Your task to perform on an android device: Add "razer blade" to the cart on costco, then select checkout. Image 0: 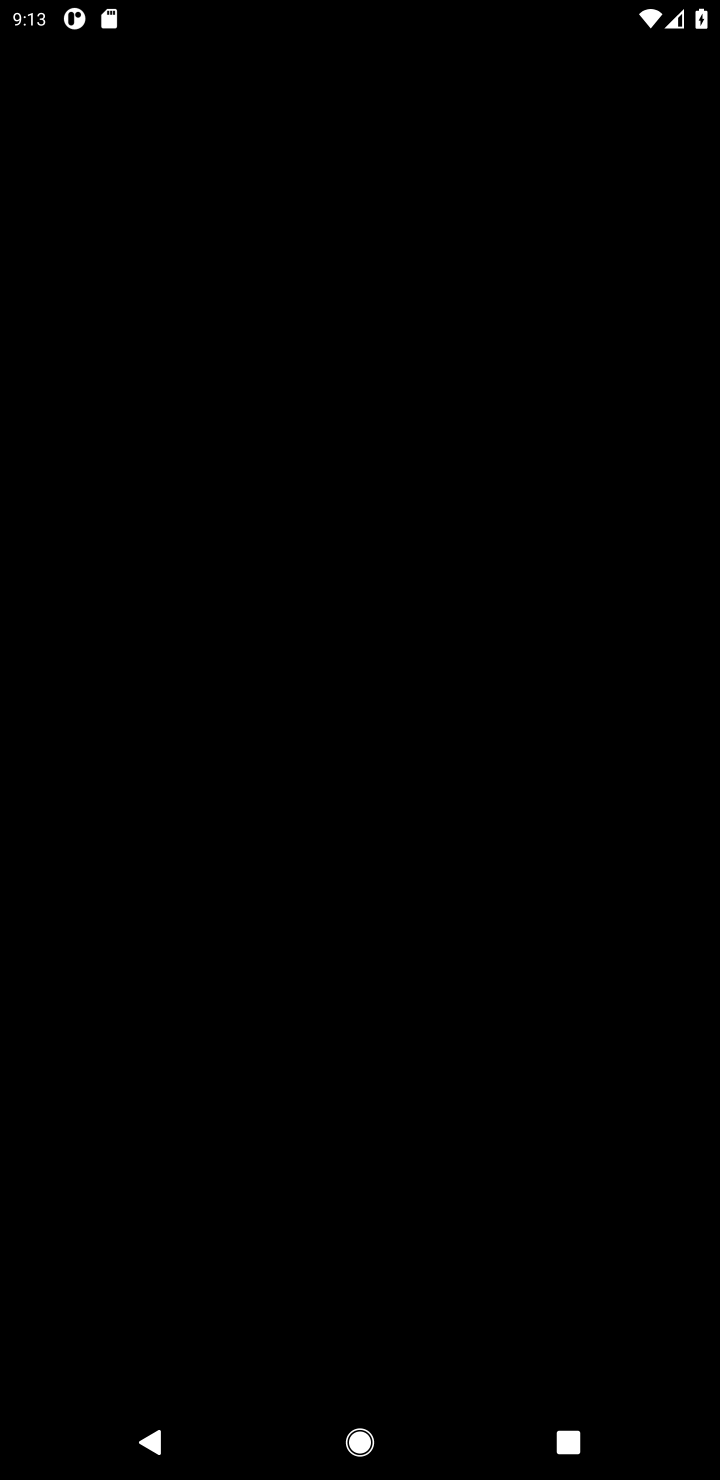
Step 0: press home button
Your task to perform on an android device: Add "razer blade" to the cart on costco, then select checkout. Image 1: 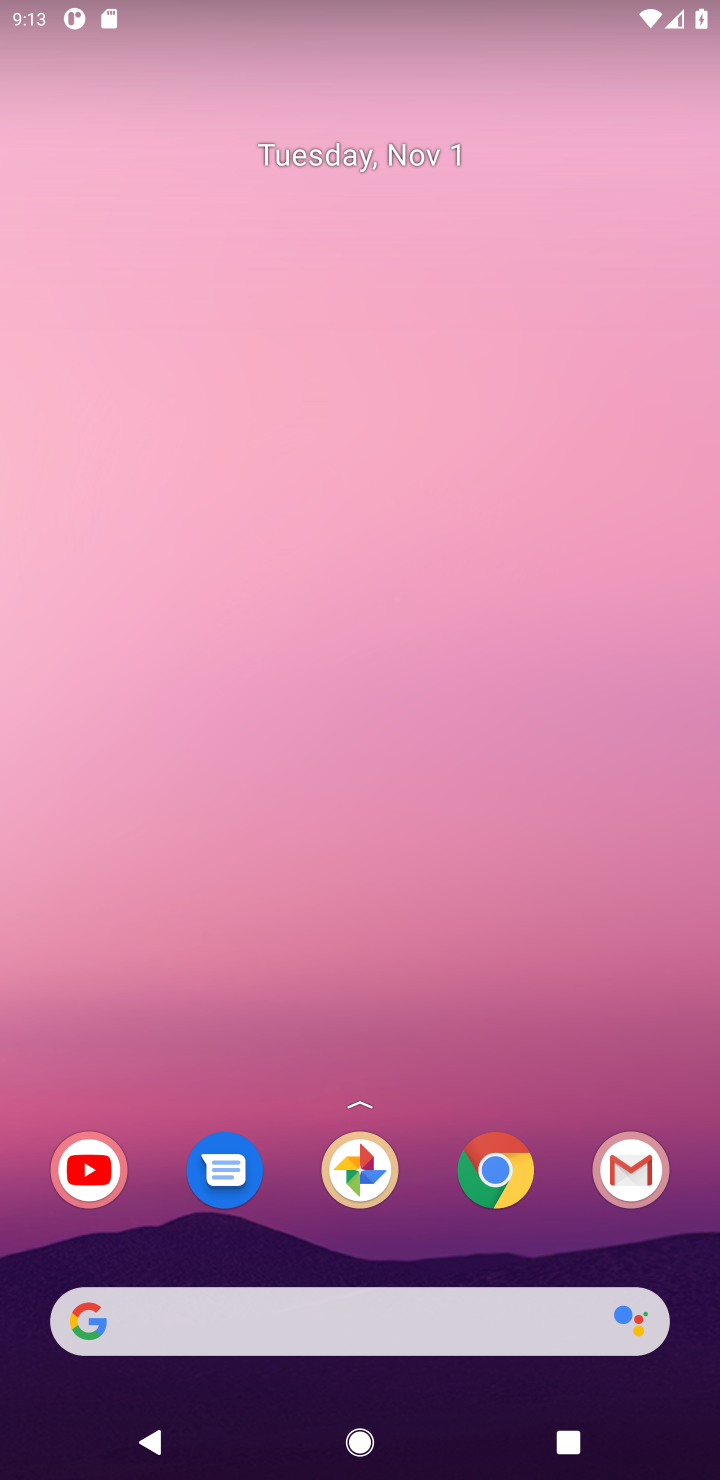
Step 1: click (506, 1198)
Your task to perform on an android device: Add "razer blade" to the cart on costco, then select checkout. Image 2: 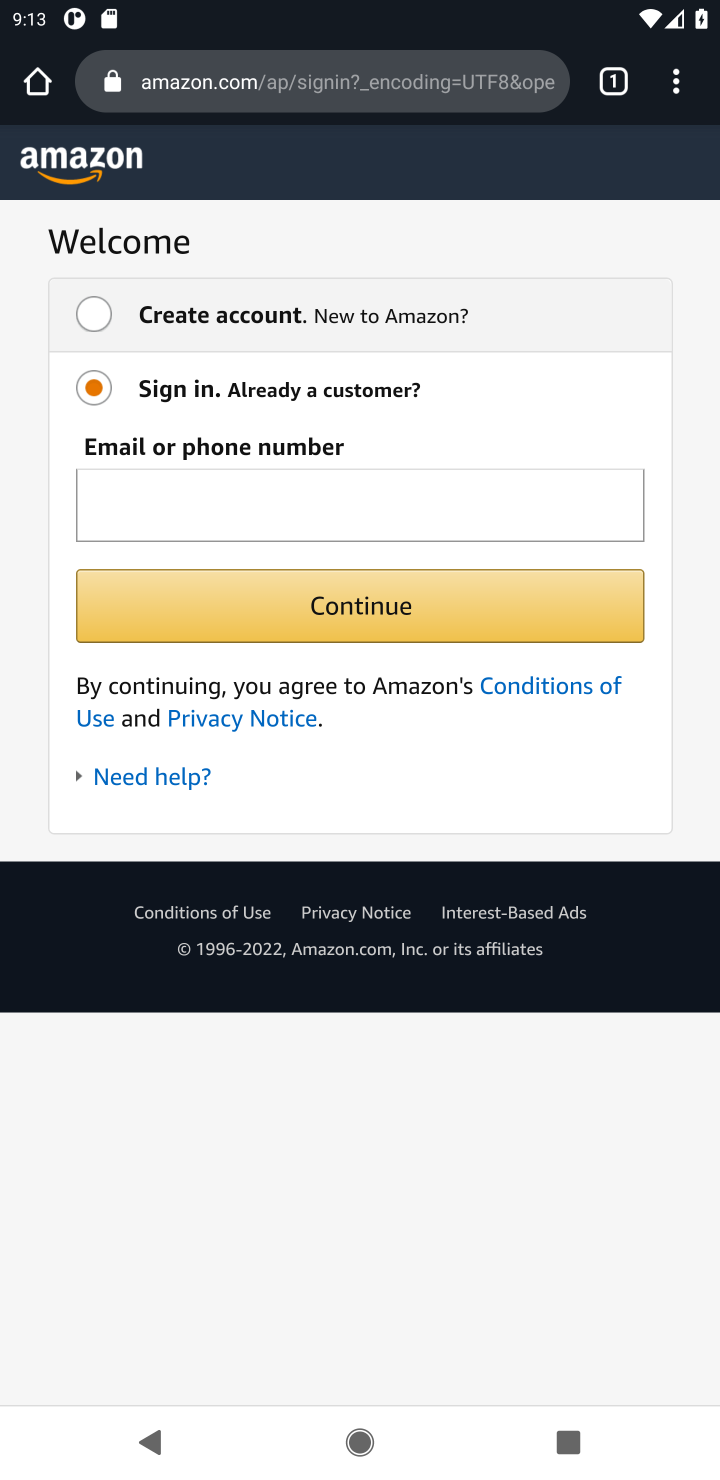
Step 2: click (316, 67)
Your task to perform on an android device: Add "razer blade" to the cart on costco, then select checkout. Image 3: 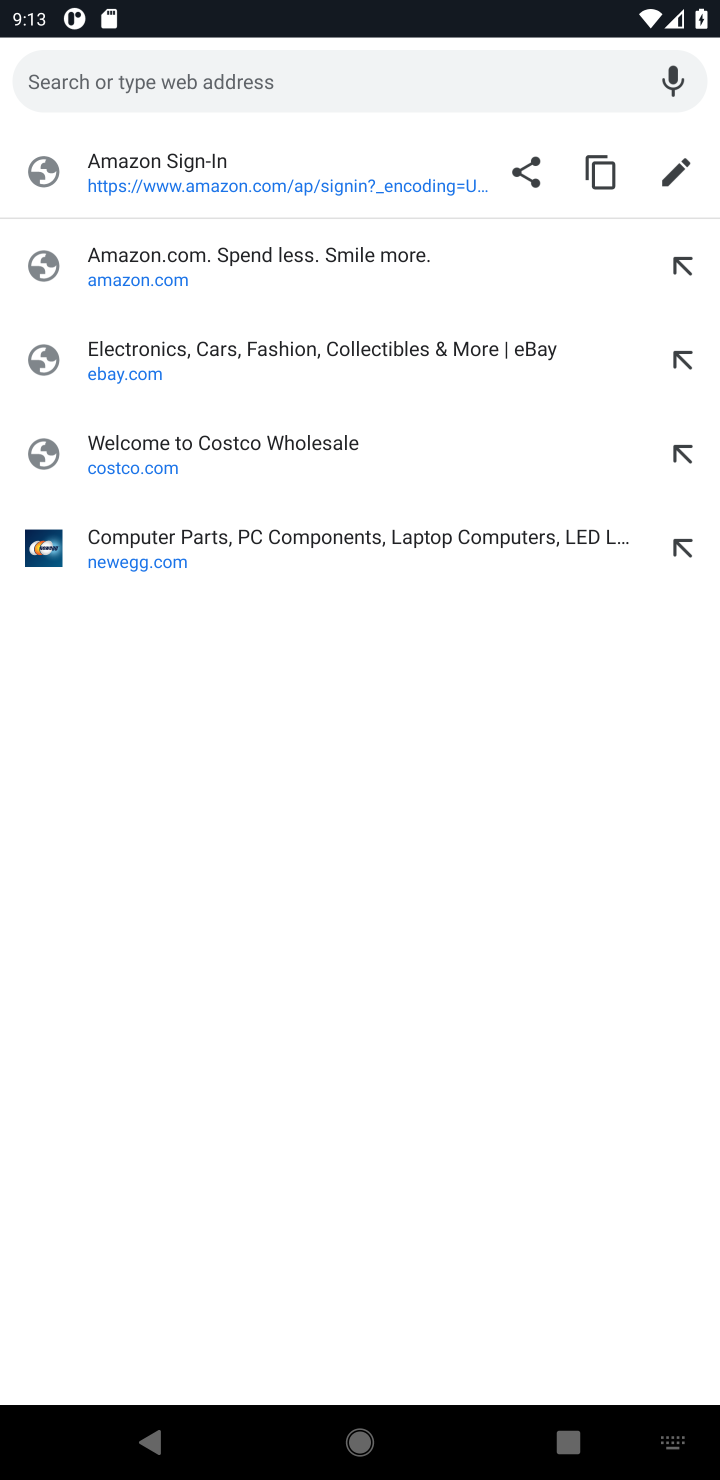
Step 3: type "costco"
Your task to perform on an android device: Add "razer blade" to the cart on costco, then select checkout. Image 4: 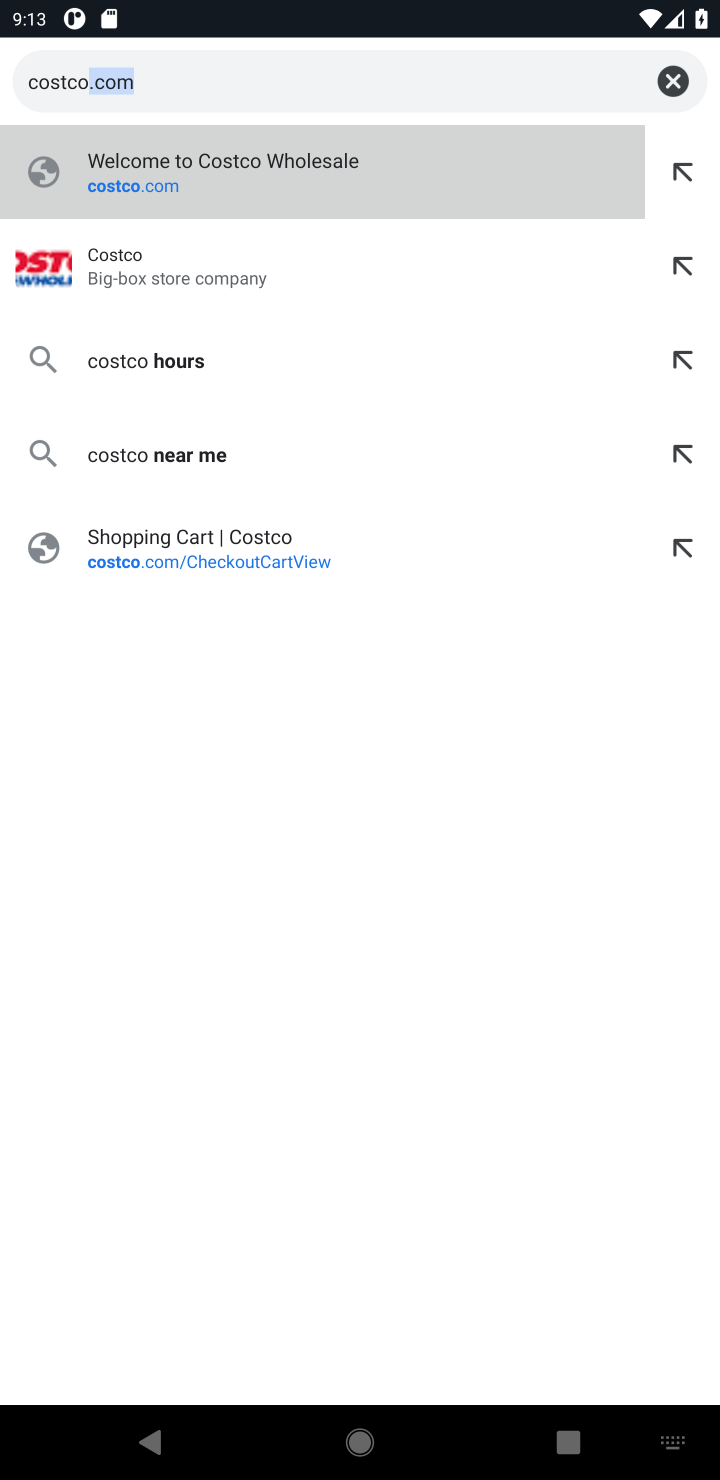
Step 4: press enter
Your task to perform on an android device: Add "razer blade" to the cart on costco, then select checkout. Image 5: 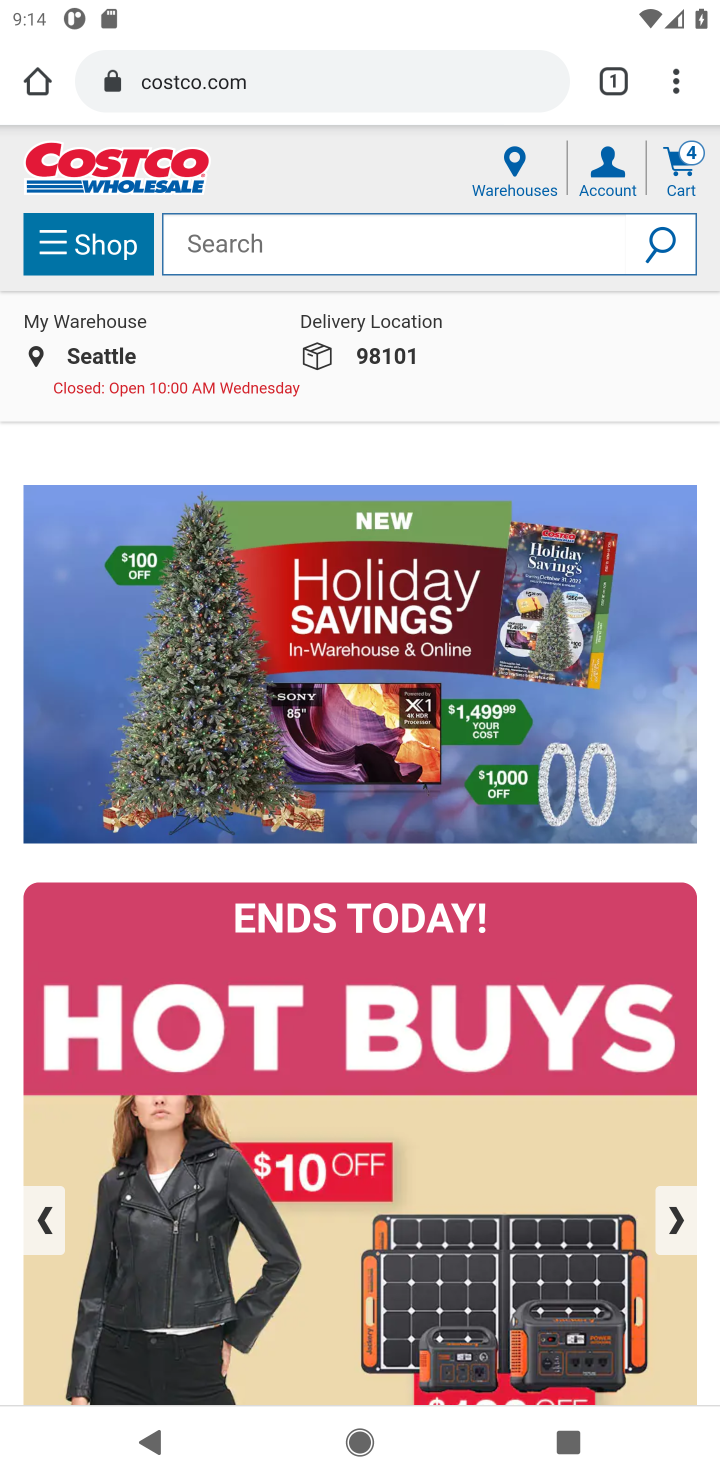
Step 5: click (362, 233)
Your task to perform on an android device: Add "razer blade" to the cart on costco, then select checkout. Image 6: 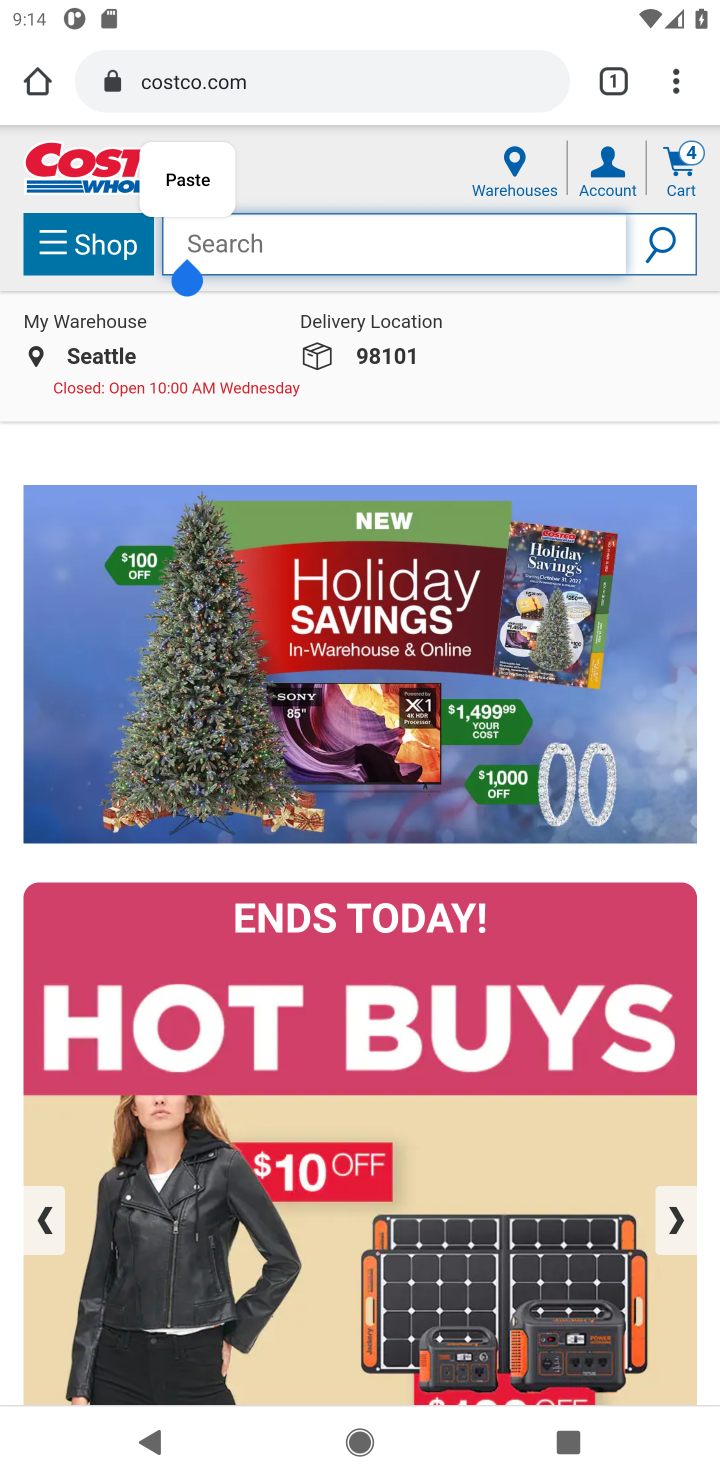
Step 6: type "razer blade"
Your task to perform on an android device: Add "razer blade" to the cart on costco, then select checkout. Image 7: 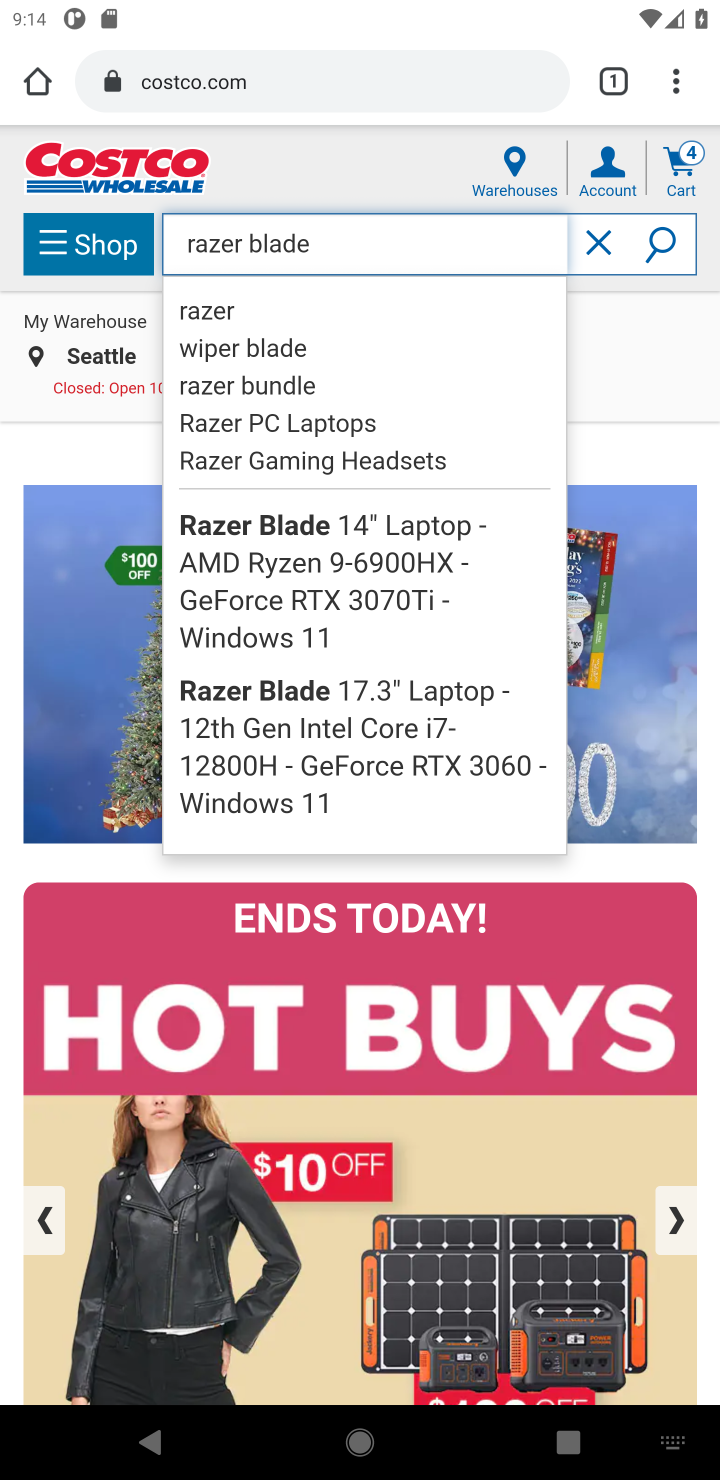
Step 7: press enter
Your task to perform on an android device: Add "razer blade" to the cart on costco, then select checkout. Image 8: 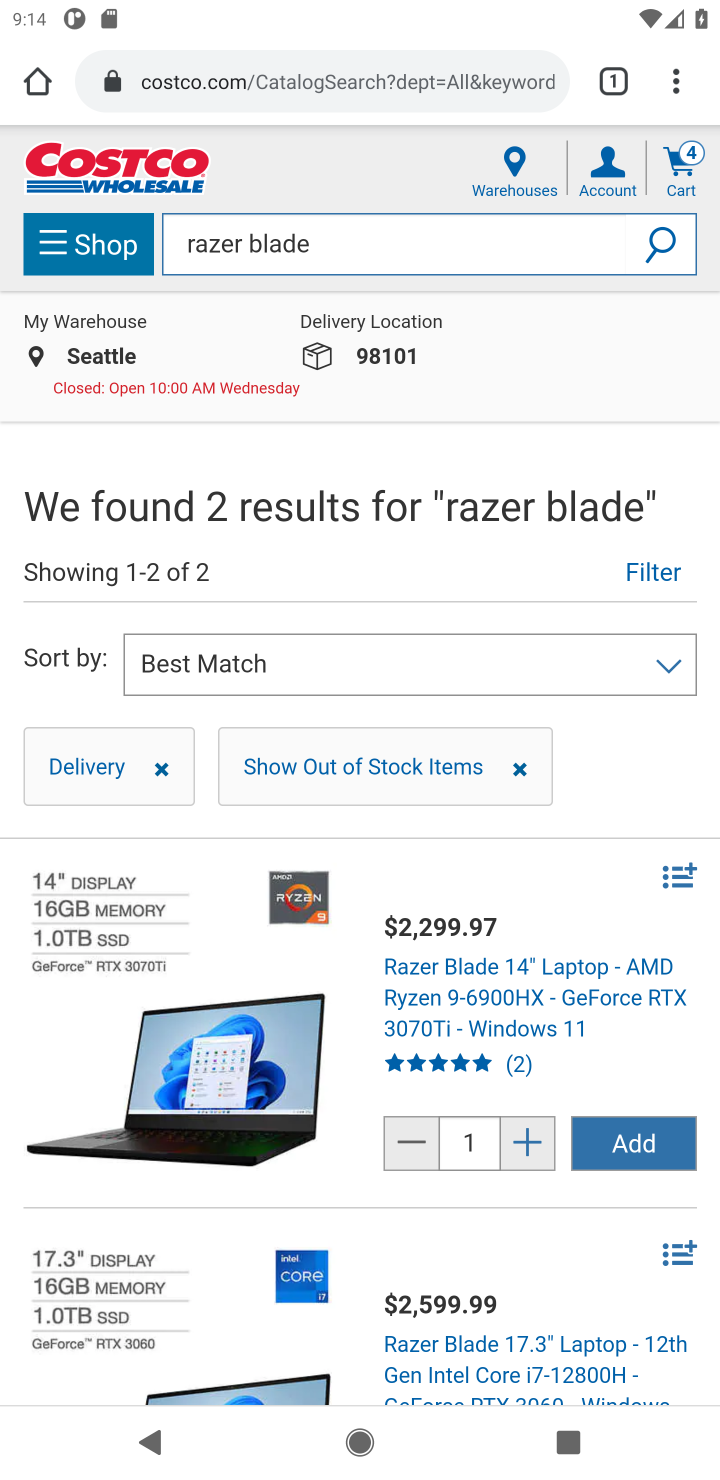
Step 8: drag from (500, 1244) to (522, 1147)
Your task to perform on an android device: Add "razer blade" to the cart on costco, then select checkout. Image 9: 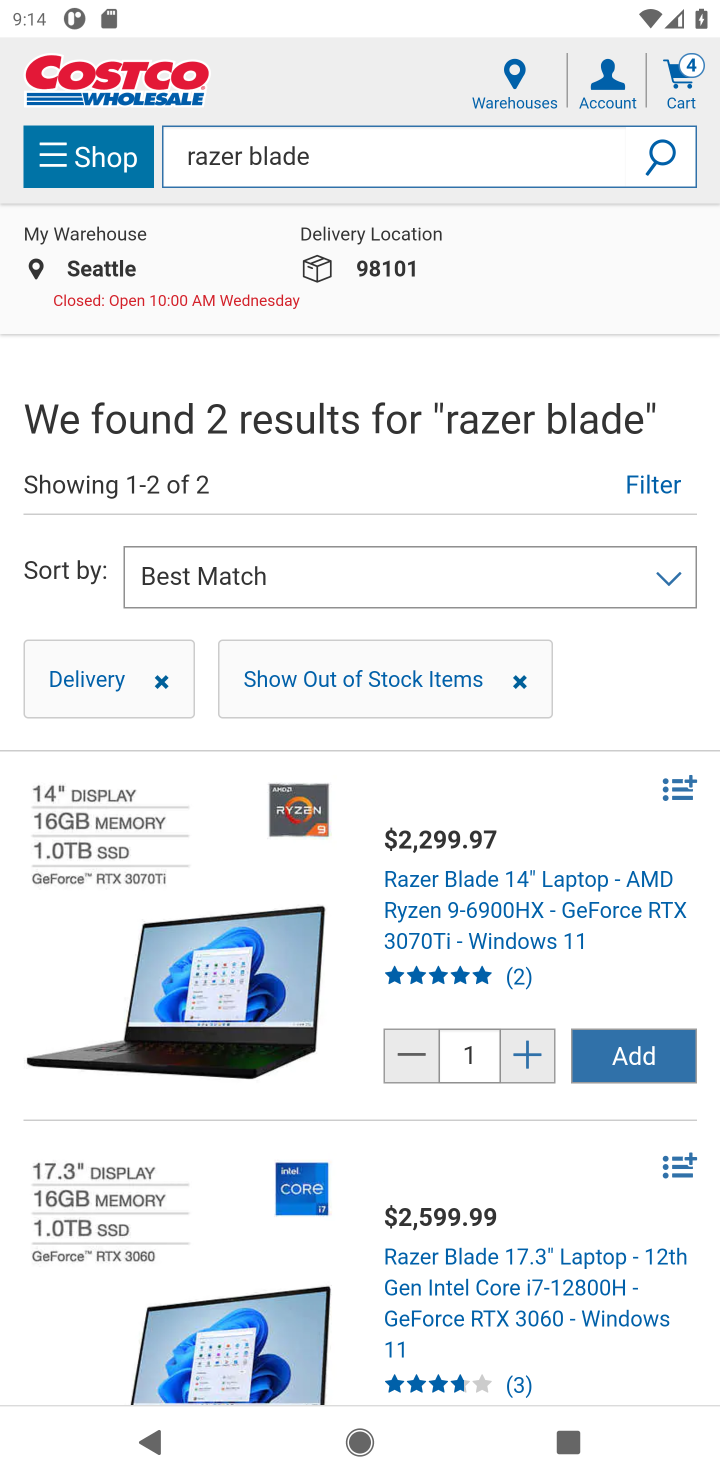
Step 9: click (463, 913)
Your task to perform on an android device: Add "razer blade" to the cart on costco, then select checkout. Image 10: 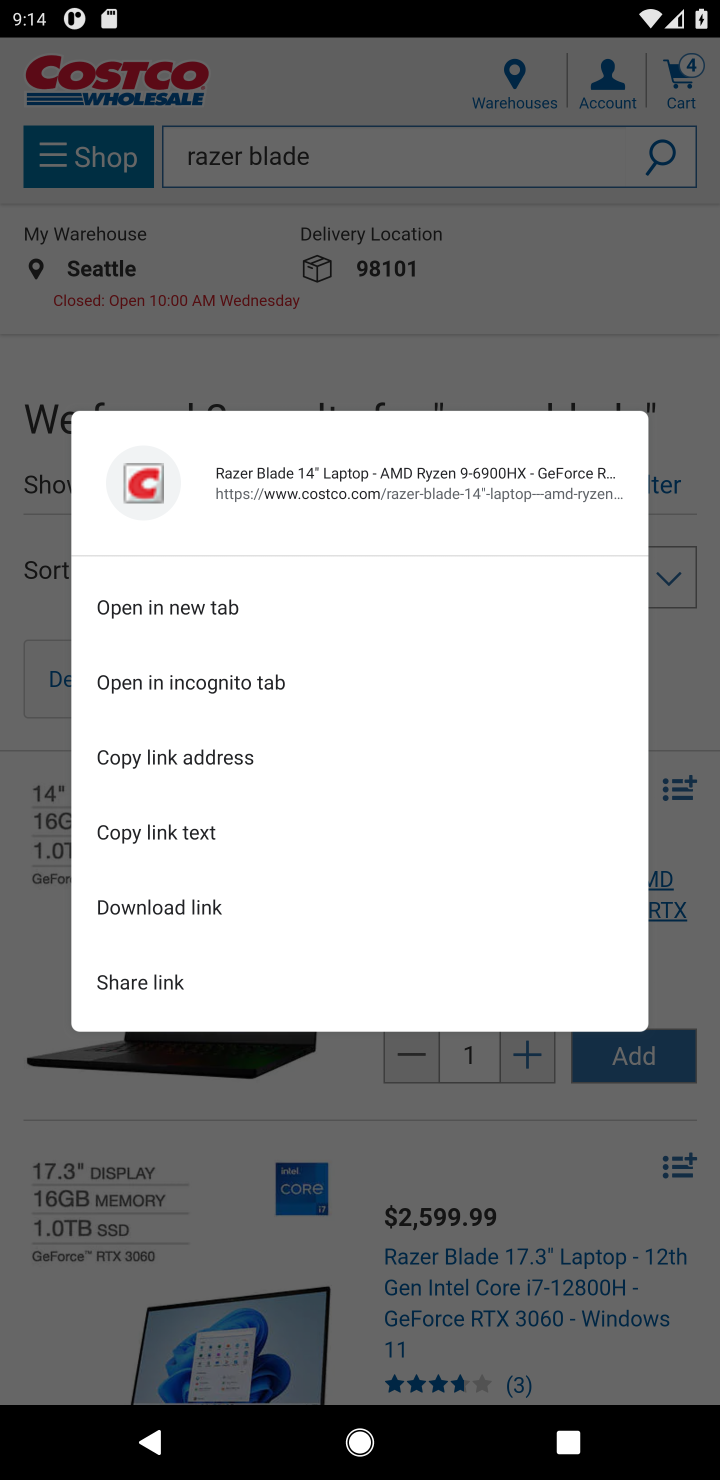
Step 10: click (507, 1163)
Your task to perform on an android device: Add "razer blade" to the cart on costco, then select checkout. Image 11: 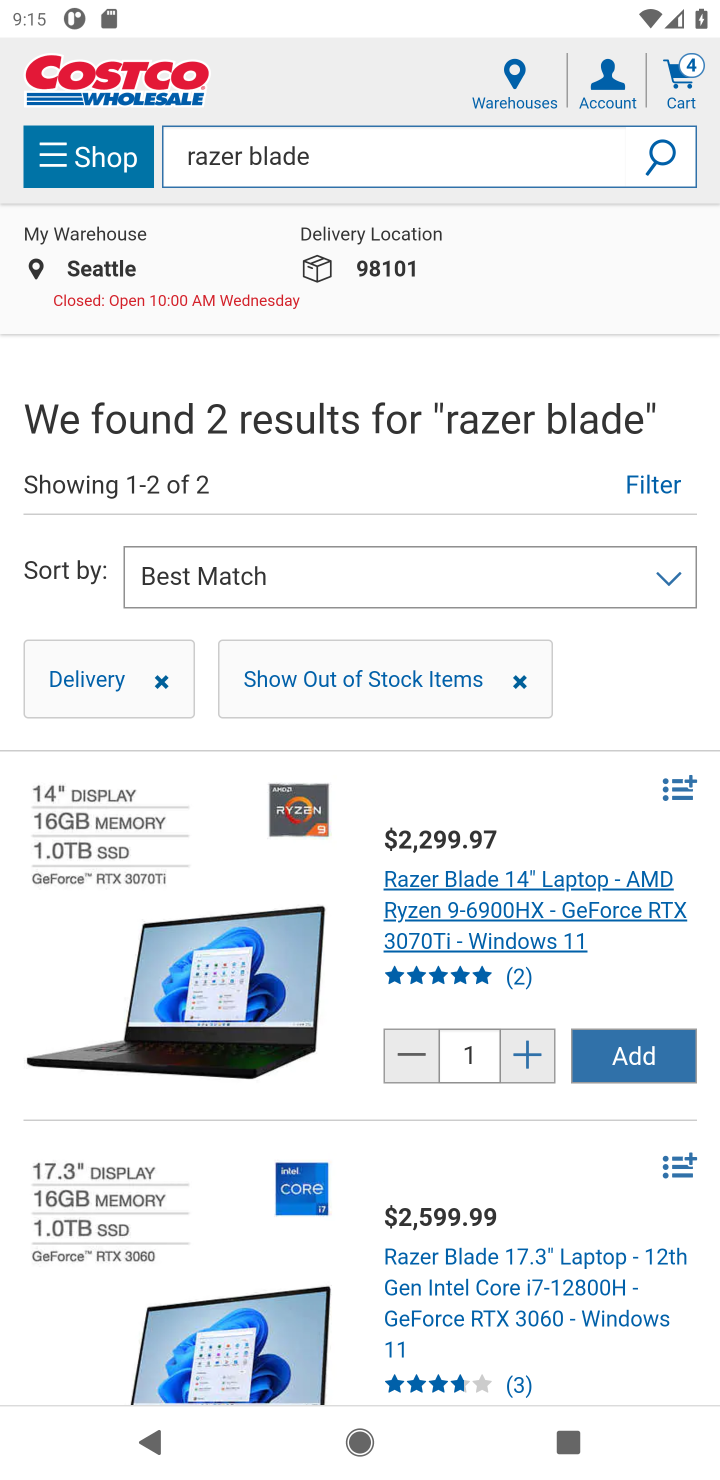
Step 11: click (517, 932)
Your task to perform on an android device: Add "razer blade" to the cart on costco, then select checkout. Image 12: 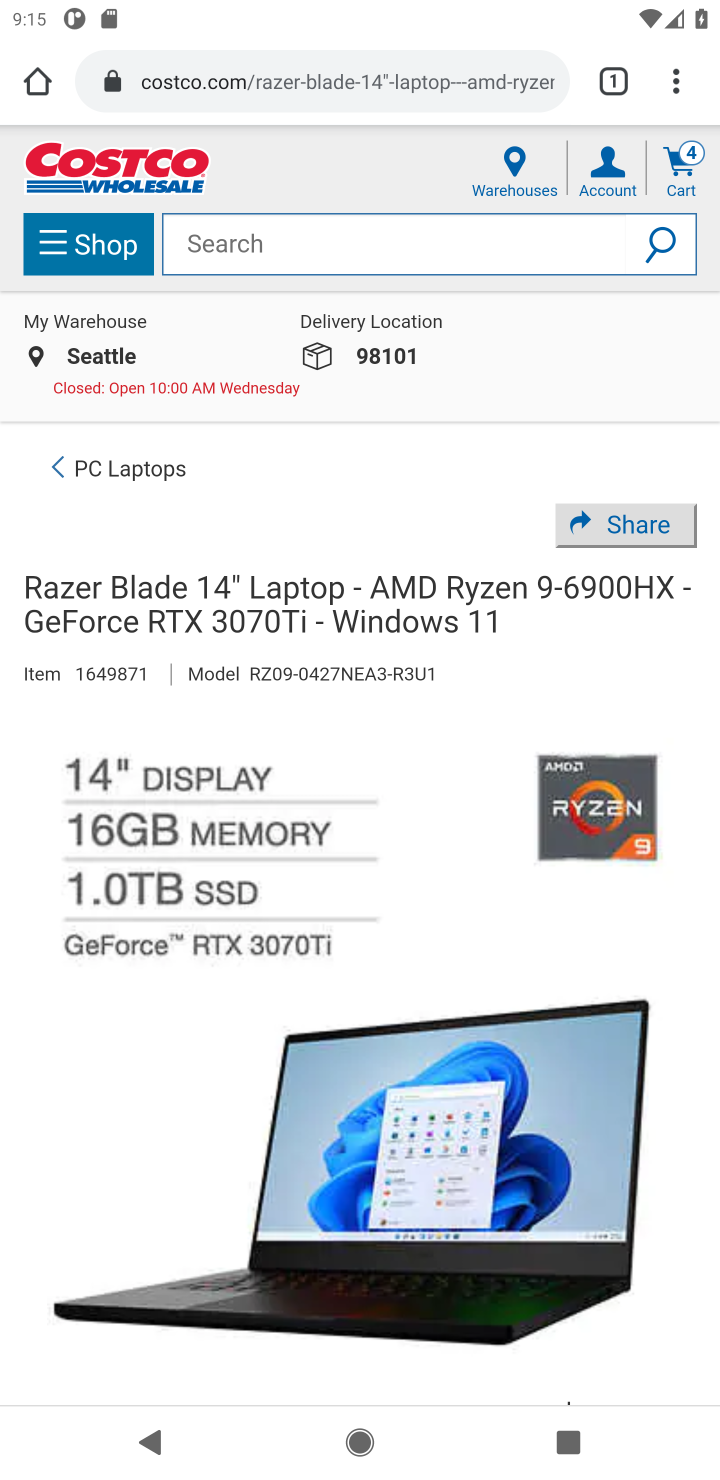
Step 12: drag from (529, 1166) to (485, 511)
Your task to perform on an android device: Add "razer blade" to the cart on costco, then select checkout. Image 13: 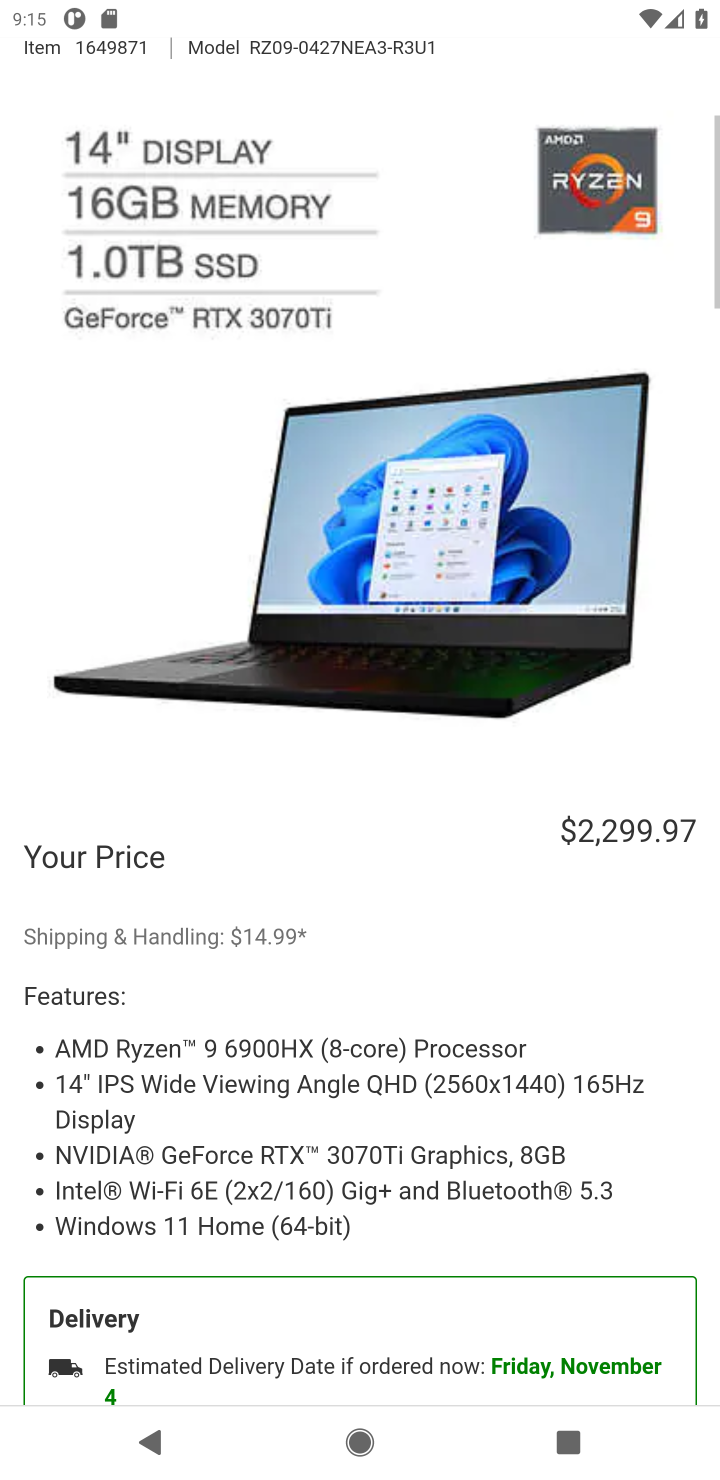
Step 13: drag from (589, 1226) to (520, 637)
Your task to perform on an android device: Add "razer blade" to the cart on costco, then select checkout. Image 14: 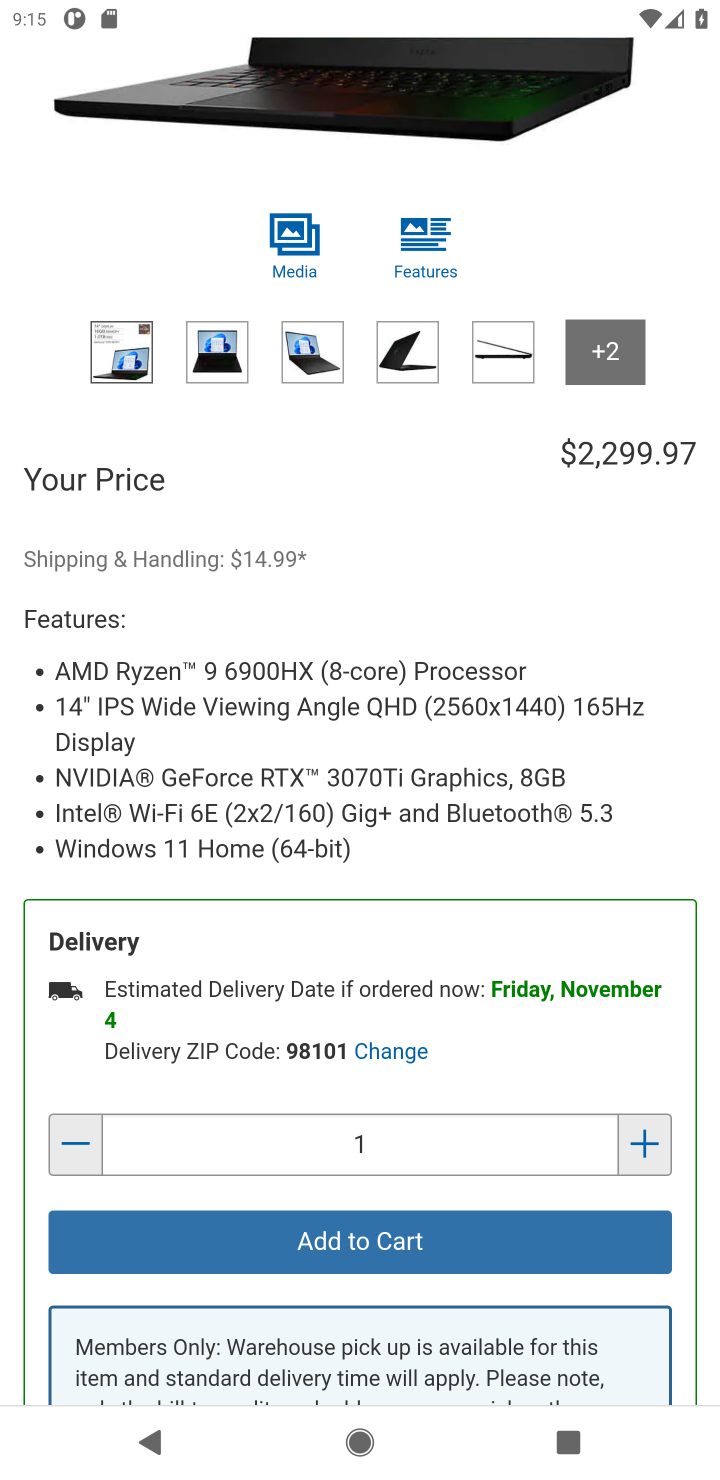
Step 14: click (471, 1239)
Your task to perform on an android device: Add "razer blade" to the cart on costco, then select checkout. Image 15: 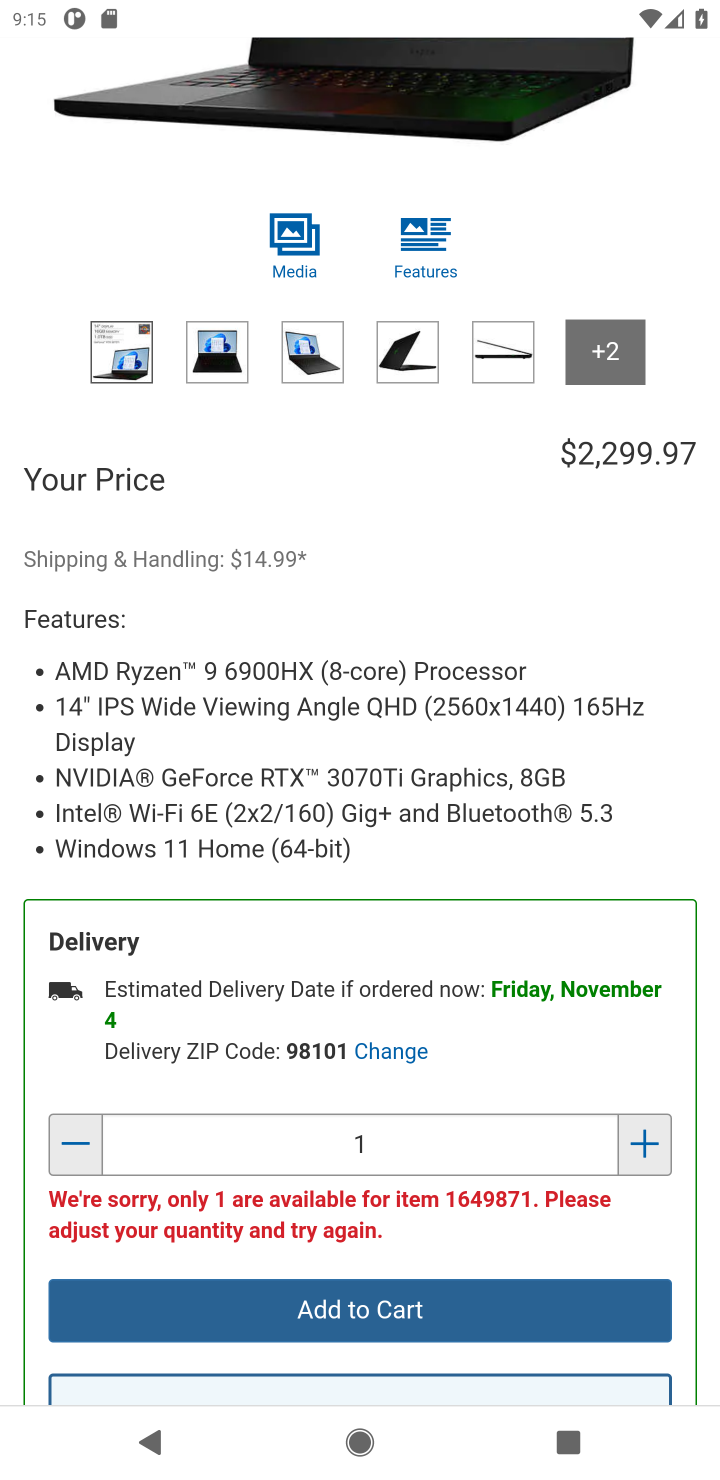
Step 15: click (502, 1317)
Your task to perform on an android device: Add "razer blade" to the cart on costco, then select checkout. Image 16: 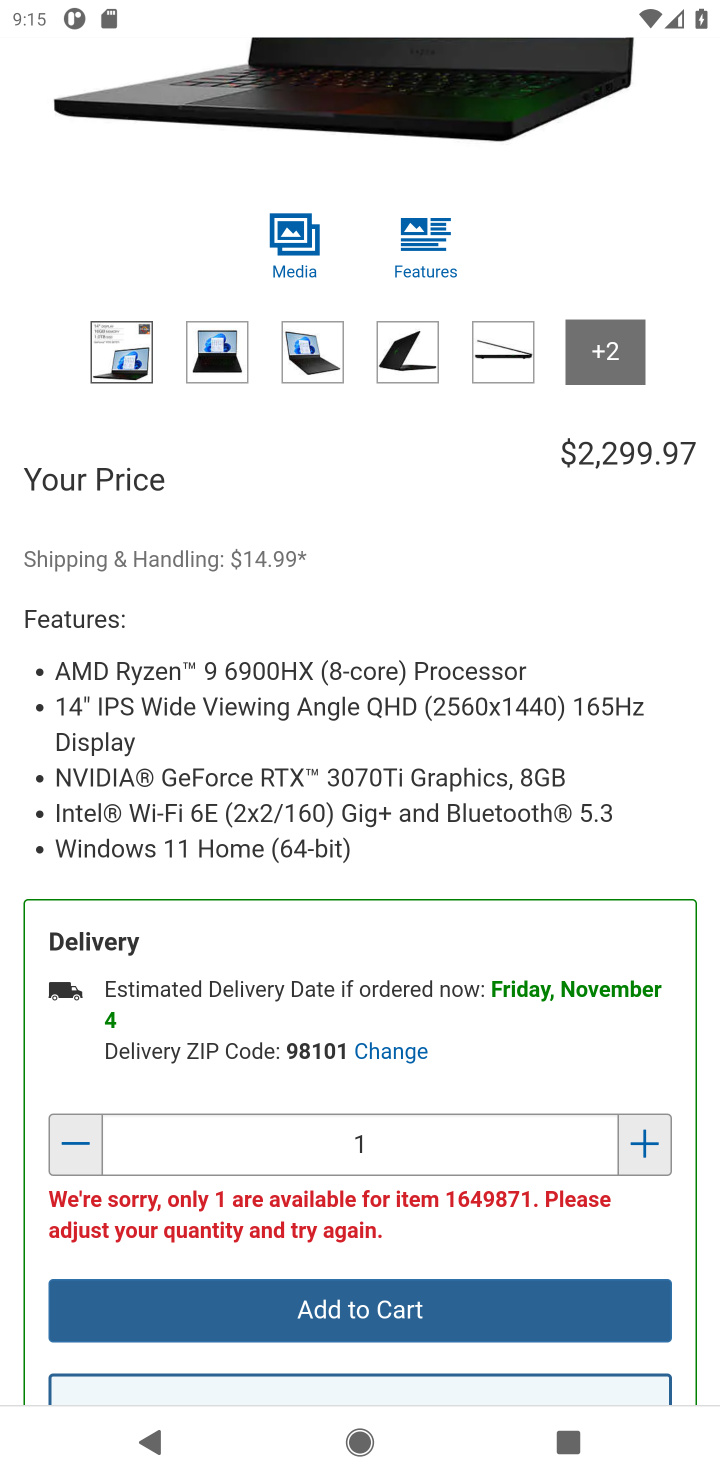
Step 16: drag from (347, 1232) to (349, 1029)
Your task to perform on an android device: Add "razer blade" to the cart on costco, then select checkout. Image 17: 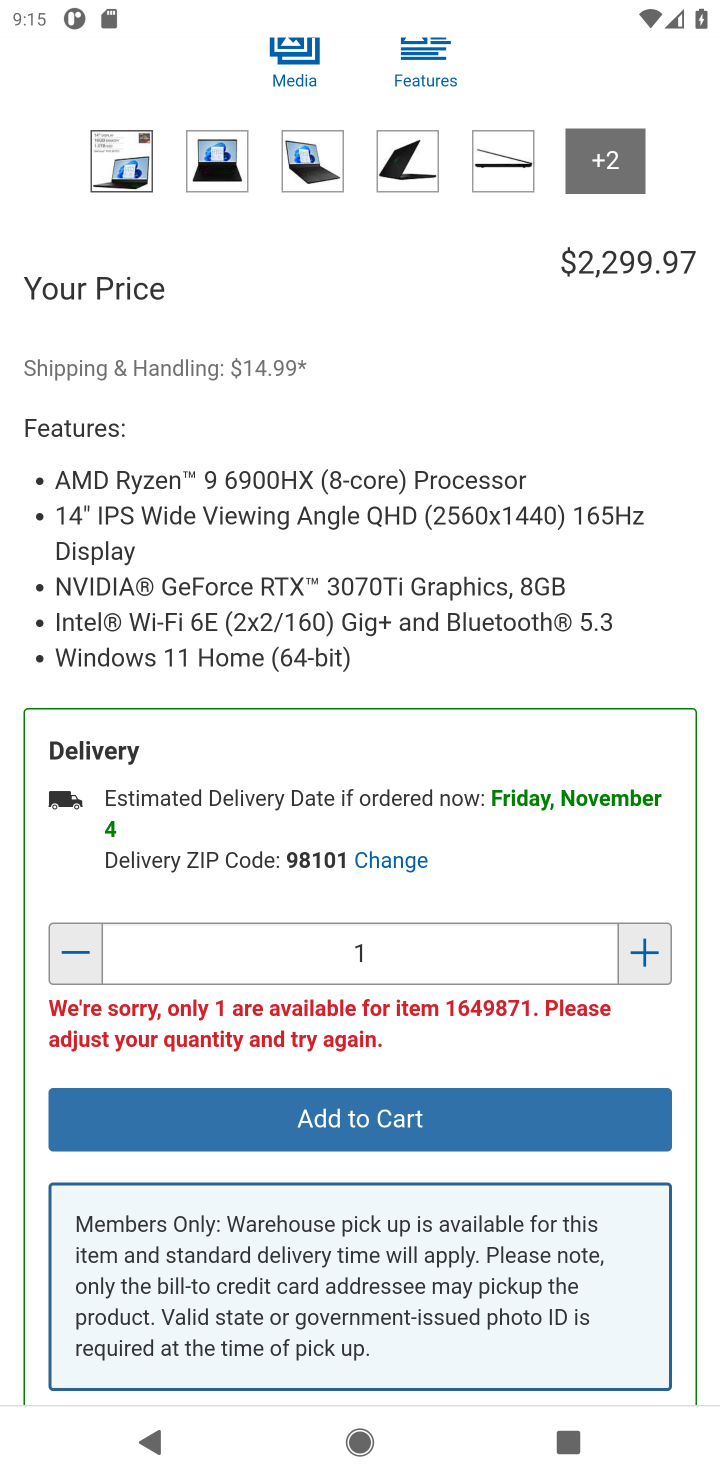
Step 17: click (76, 944)
Your task to perform on an android device: Add "razer blade" to the cart on costco, then select checkout. Image 18: 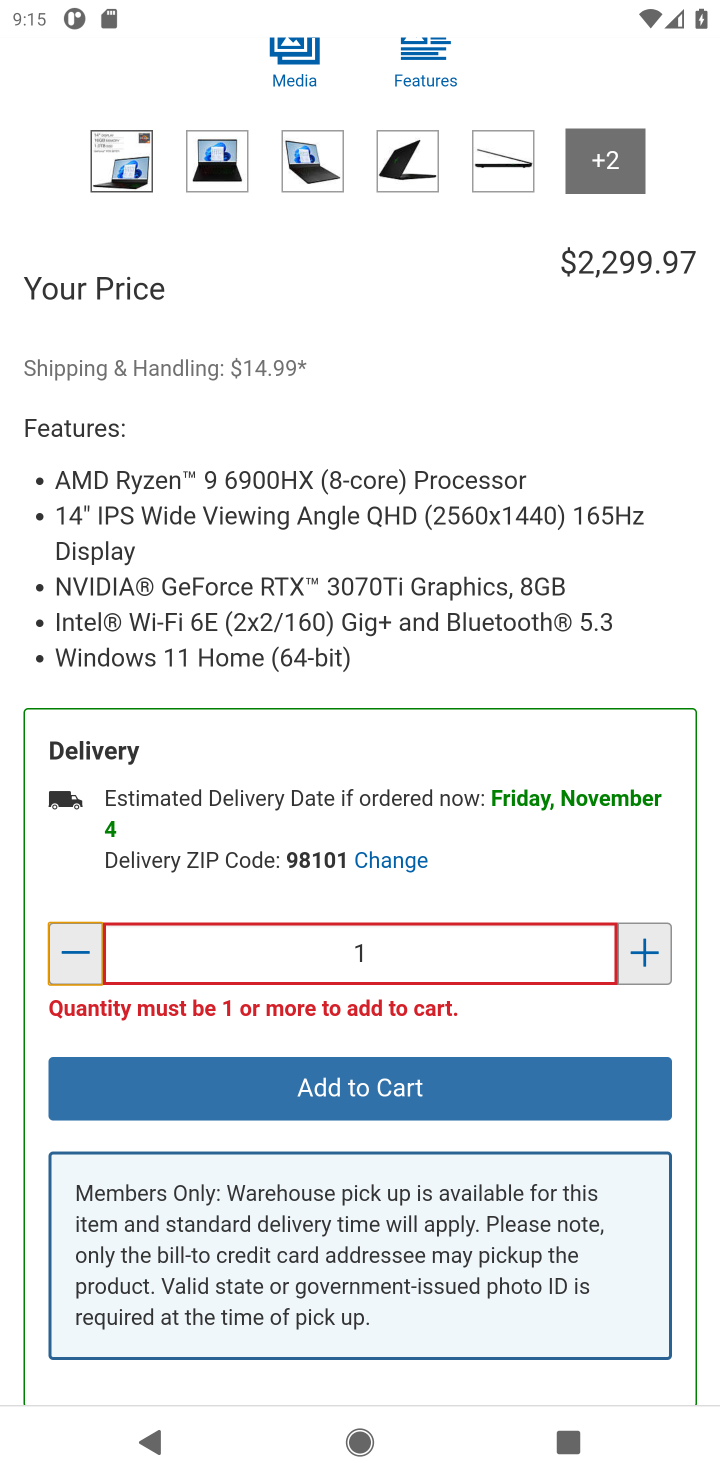
Step 18: click (491, 1091)
Your task to perform on an android device: Add "razer blade" to the cart on costco, then select checkout. Image 19: 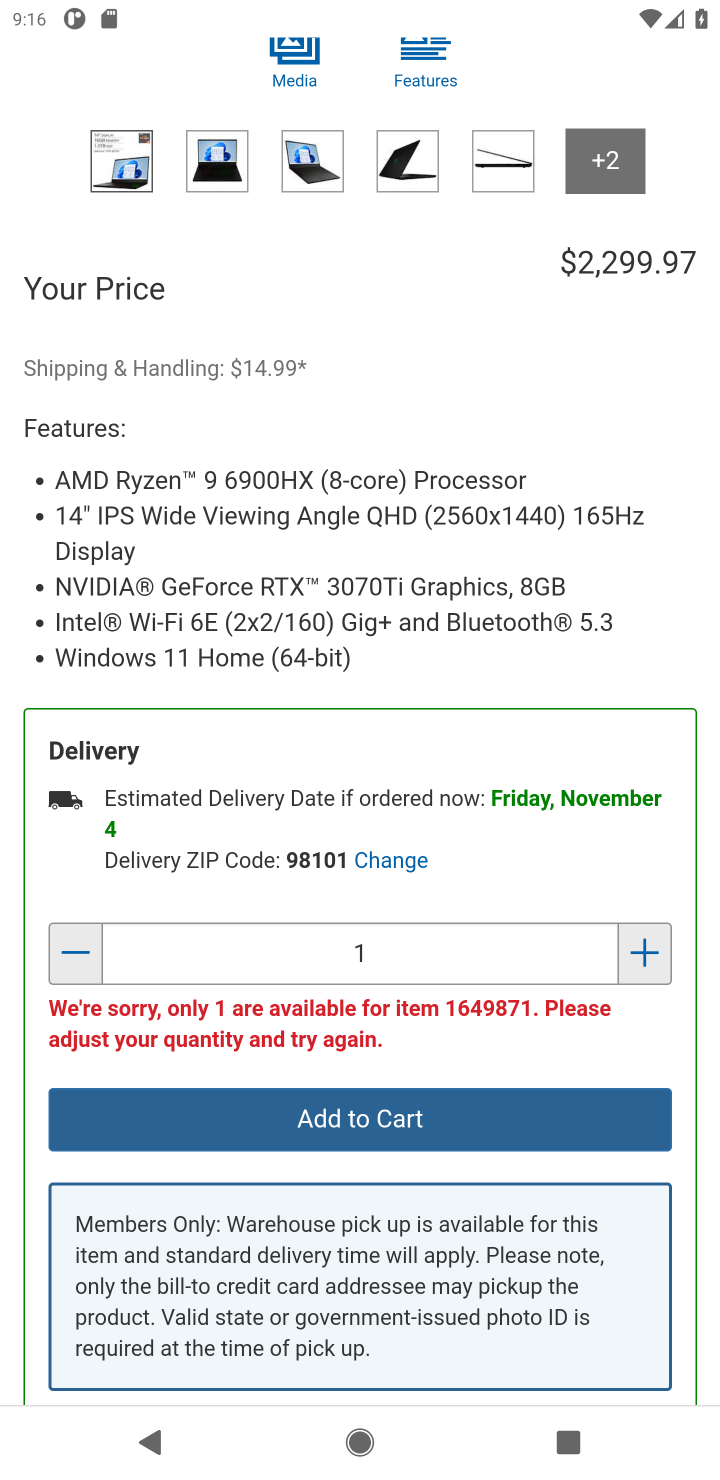
Step 19: click (513, 1107)
Your task to perform on an android device: Add "razer blade" to the cart on costco, then select checkout. Image 20: 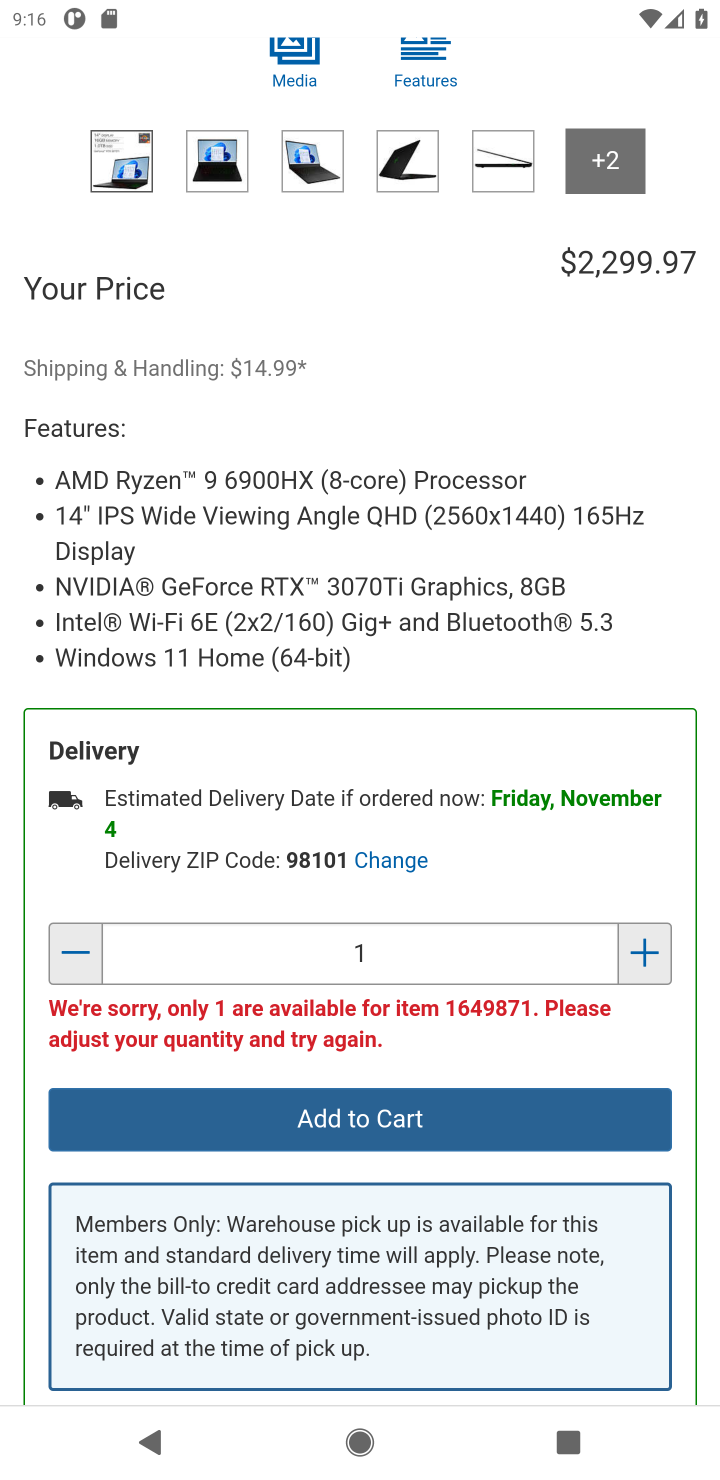
Step 20: click (643, 947)
Your task to perform on an android device: Add "razer blade" to the cart on costco, then select checkout. Image 21: 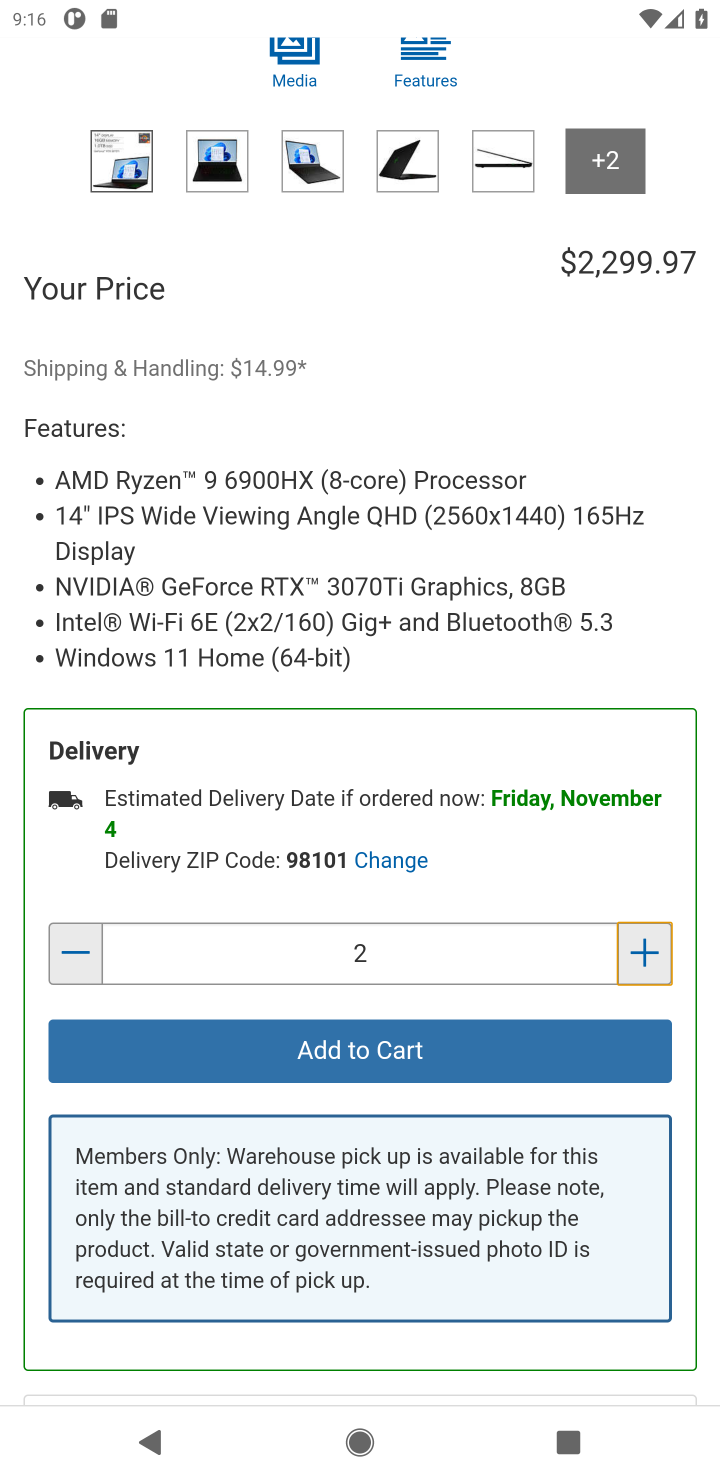
Step 21: click (393, 1072)
Your task to perform on an android device: Add "razer blade" to the cart on costco, then select checkout. Image 22: 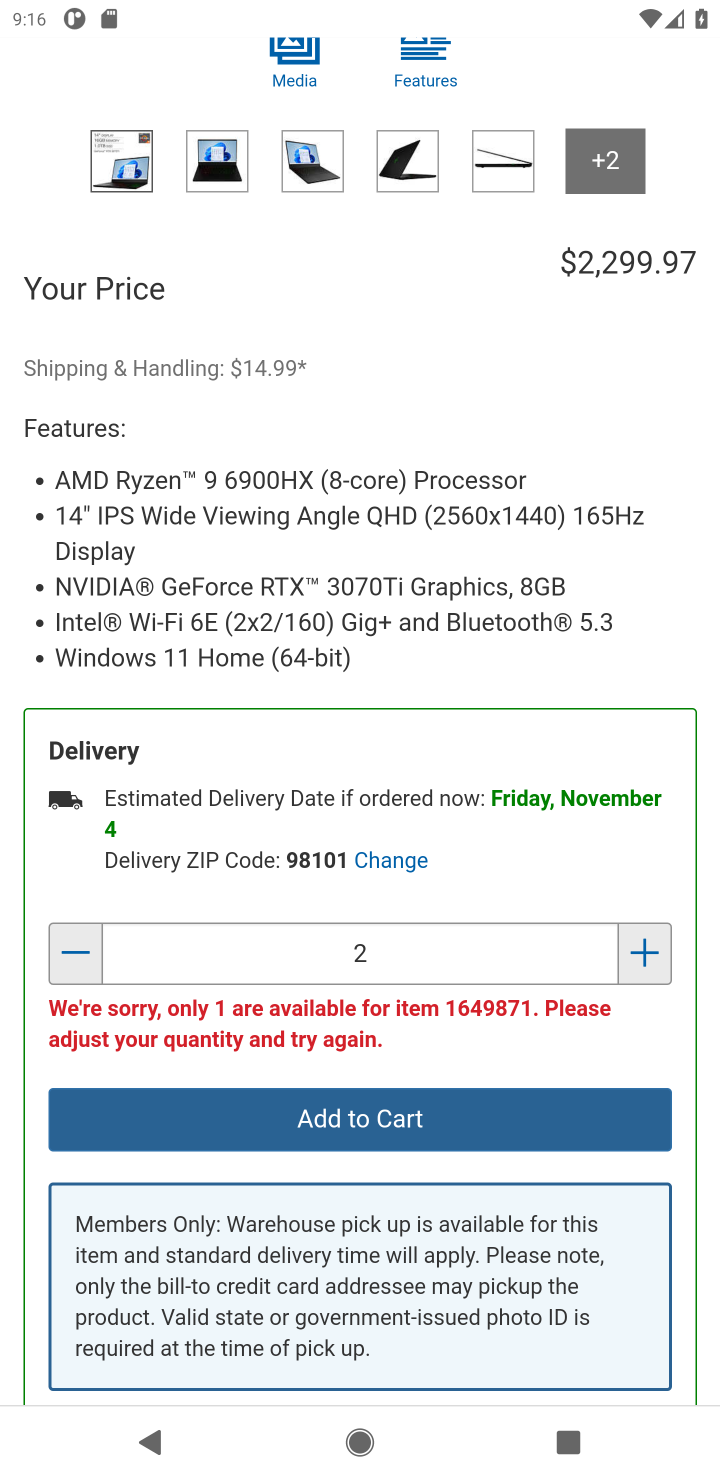
Step 22: click (64, 926)
Your task to perform on an android device: Add "razer blade" to the cart on costco, then select checkout. Image 23: 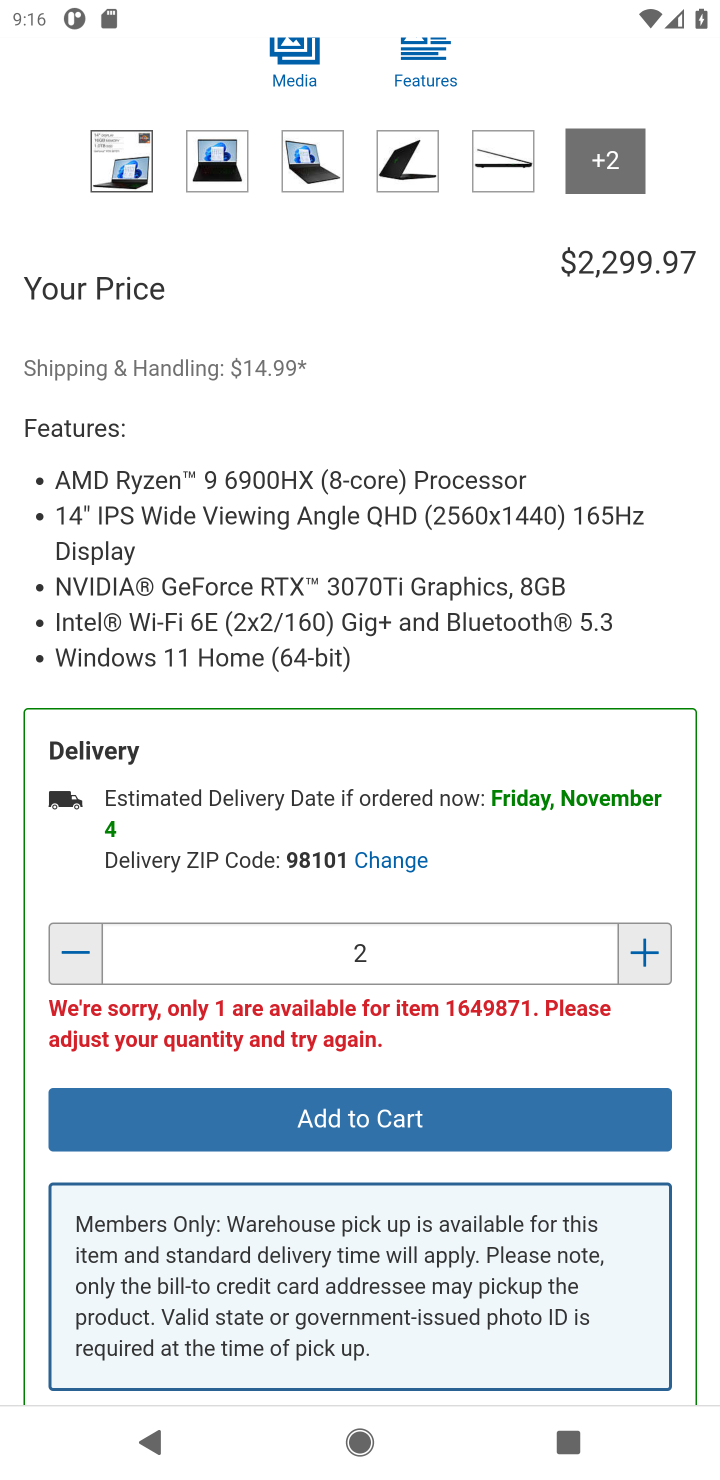
Step 23: click (78, 958)
Your task to perform on an android device: Add "razer blade" to the cart on costco, then select checkout. Image 24: 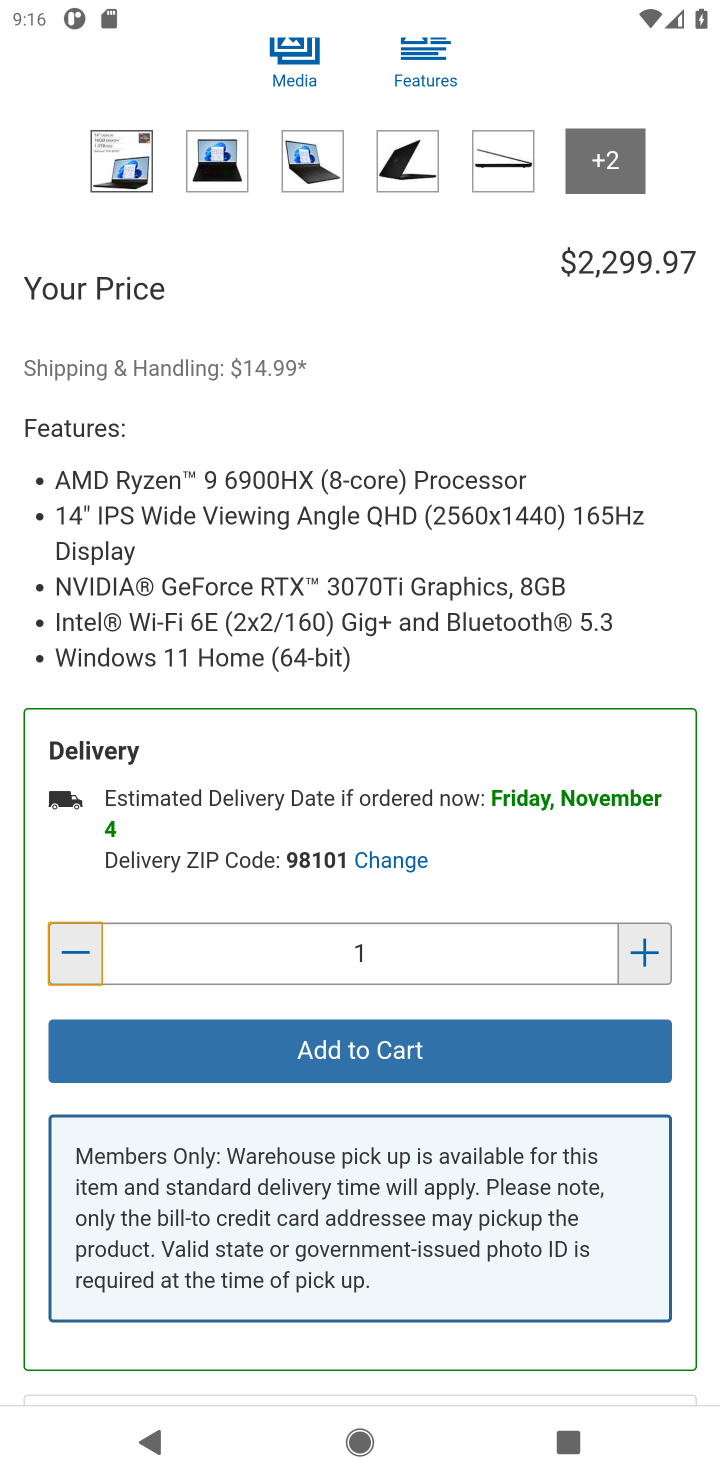
Step 24: click (561, 1062)
Your task to perform on an android device: Add "razer blade" to the cart on costco, then select checkout. Image 25: 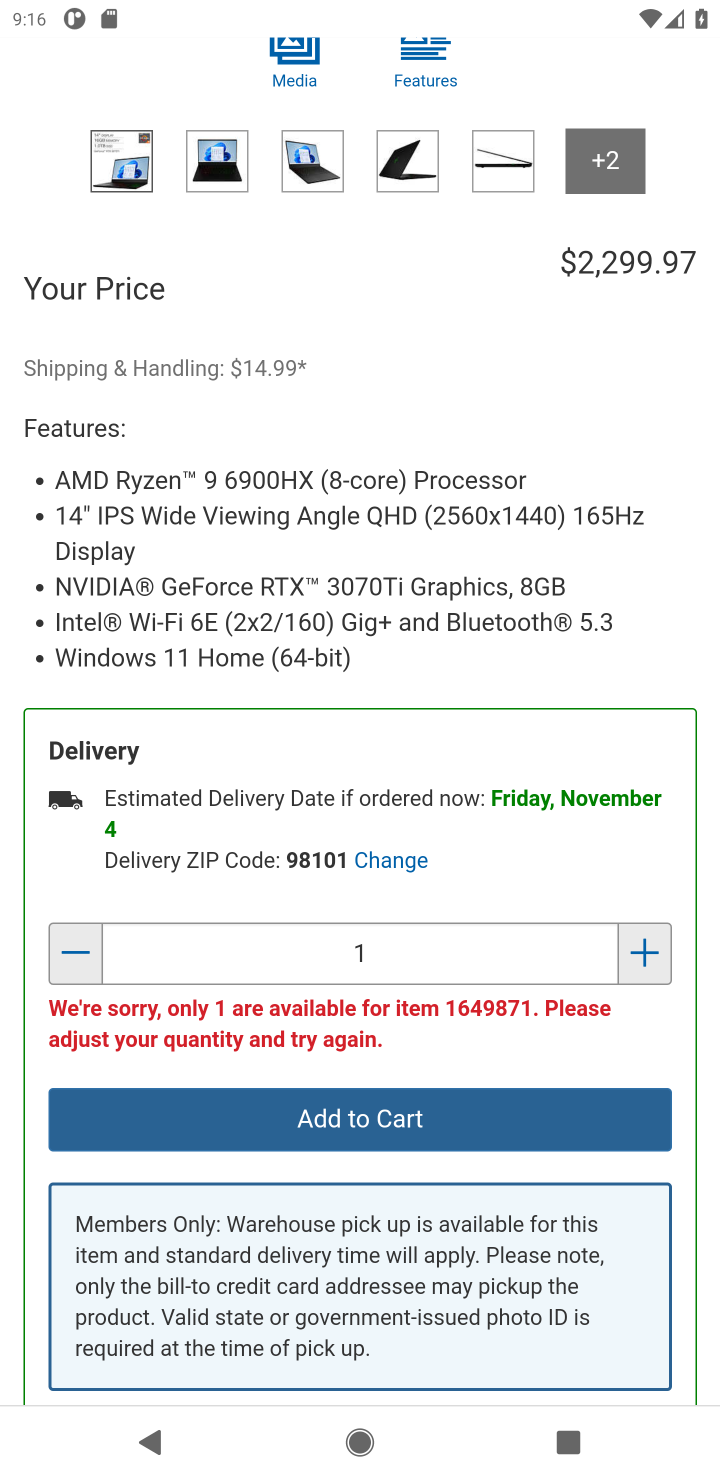
Step 25: task complete